Your task to perform on an android device: Show the shopping cart on newegg. Add "macbook air" to the cart on newegg Image 0: 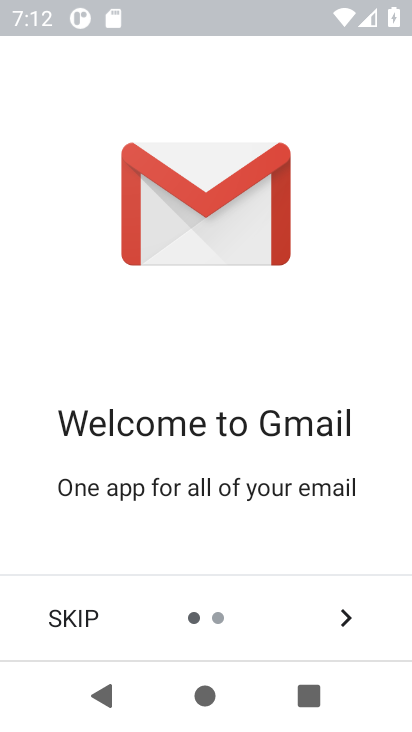
Step 0: press home button
Your task to perform on an android device: Show the shopping cart on newegg. Add "macbook air" to the cart on newegg Image 1: 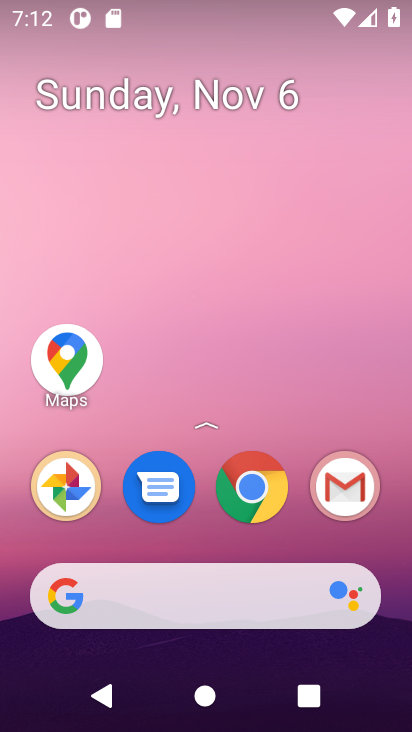
Step 1: click (230, 484)
Your task to perform on an android device: Show the shopping cart on newegg. Add "macbook air" to the cart on newegg Image 2: 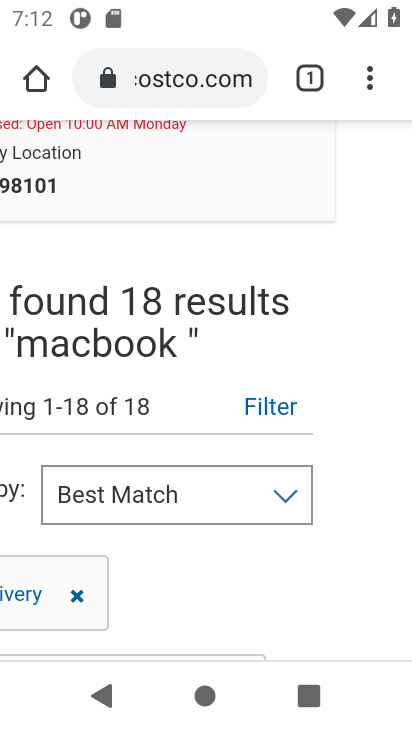
Step 2: click (216, 69)
Your task to perform on an android device: Show the shopping cart on newegg. Add "macbook air" to the cart on newegg Image 3: 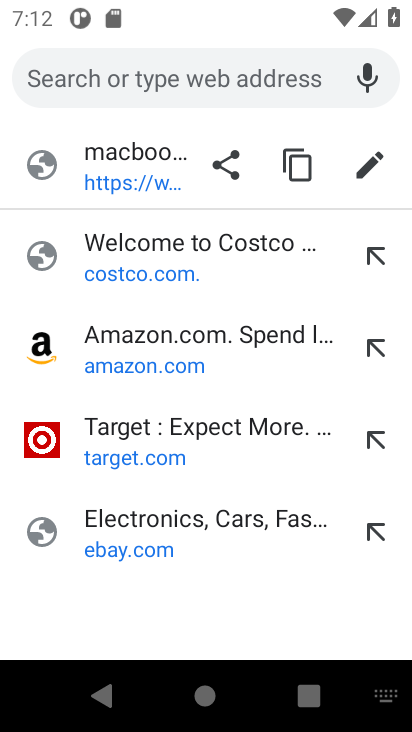
Step 3: type "newegg"
Your task to perform on an android device: Show the shopping cart on newegg. Add "macbook air" to the cart on newegg Image 4: 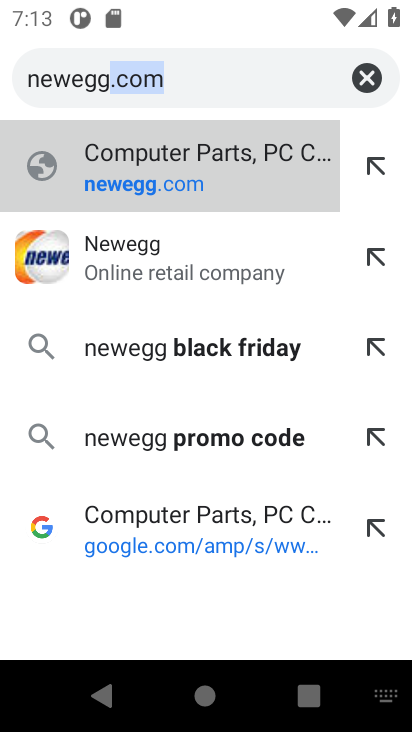
Step 4: click (70, 254)
Your task to perform on an android device: Show the shopping cart on newegg. Add "macbook air" to the cart on newegg Image 5: 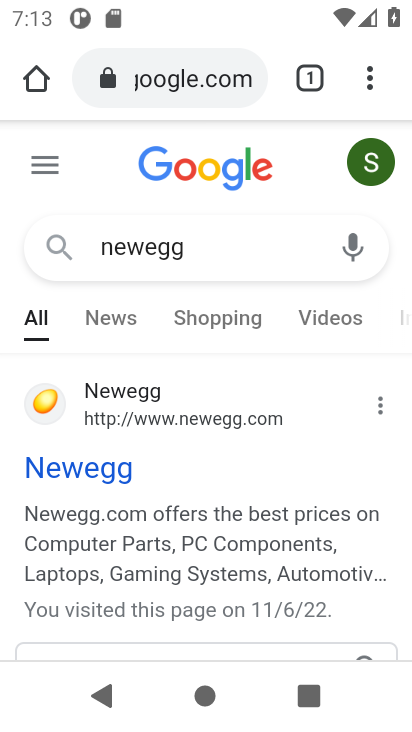
Step 5: click (50, 480)
Your task to perform on an android device: Show the shopping cart on newegg. Add "macbook air" to the cart on newegg Image 6: 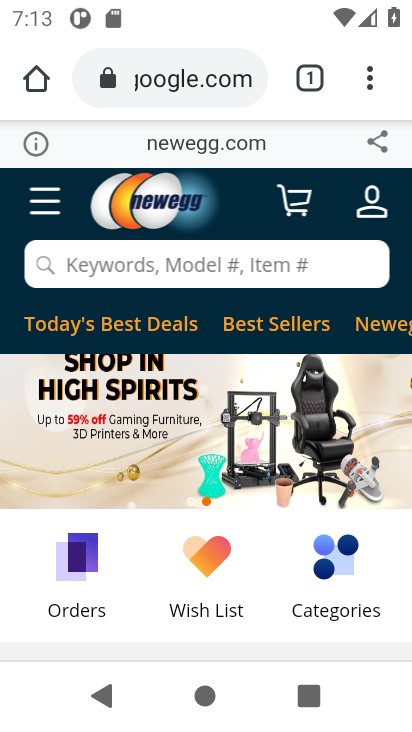
Step 6: click (113, 257)
Your task to perform on an android device: Show the shopping cart on newegg. Add "macbook air" to the cart on newegg Image 7: 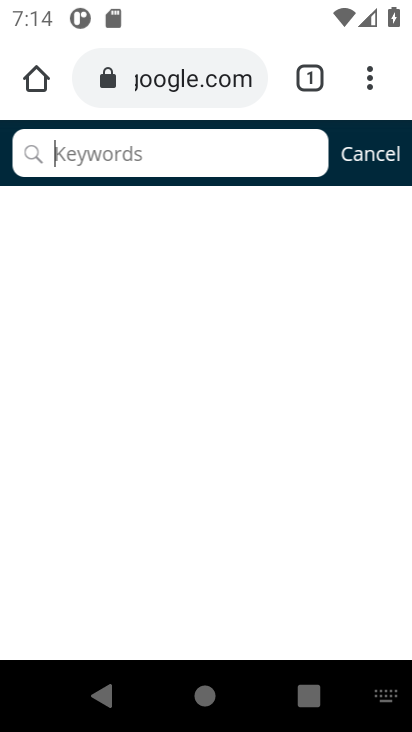
Step 7: click (393, 150)
Your task to perform on an android device: Show the shopping cart on newegg. Add "macbook air" to the cart on newegg Image 8: 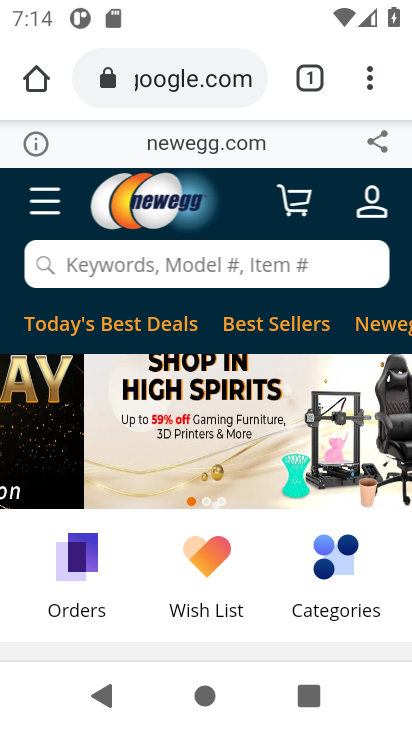
Step 8: click (310, 198)
Your task to perform on an android device: Show the shopping cart on newegg. Add "macbook air" to the cart on newegg Image 9: 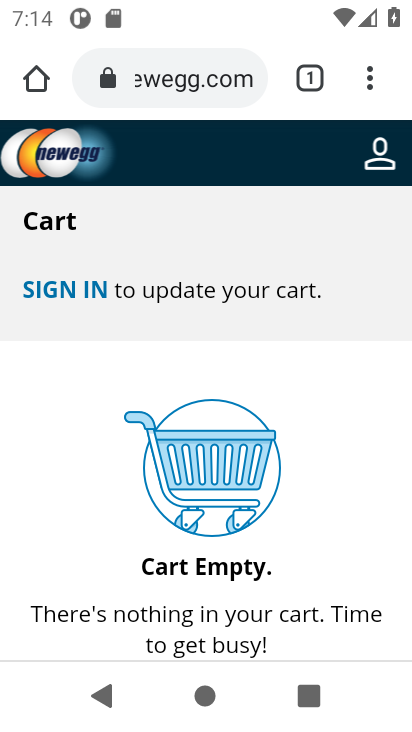
Step 9: press back button
Your task to perform on an android device: Show the shopping cart on newegg. Add "macbook air" to the cart on newegg Image 10: 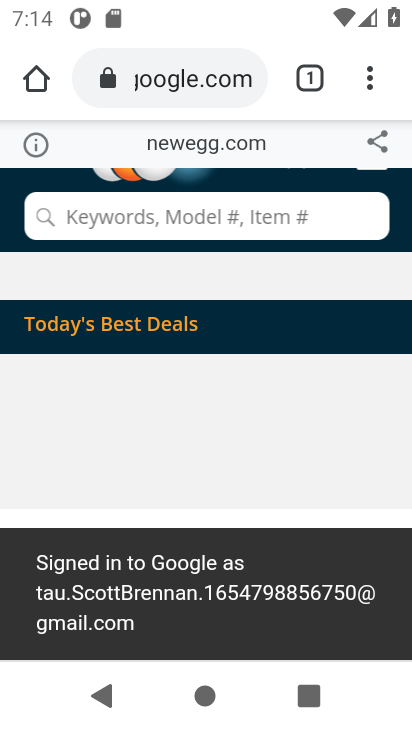
Step 10: click (116, 221)
Your task to perform on an android device: Show the shopping cart on newegg. Add "macbook air" to the cart on newegg Image 11: 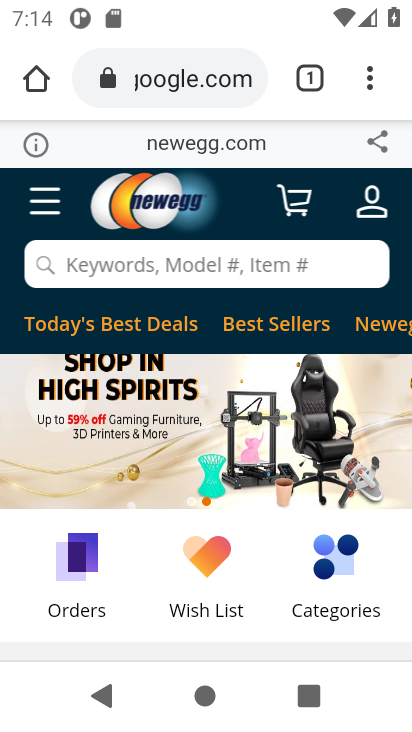
Step 11: click (132, 257)
Your task to perform on an android device: Show the shopping cart on newegg. Add "macbook air" to the cart on newegg Image 12: 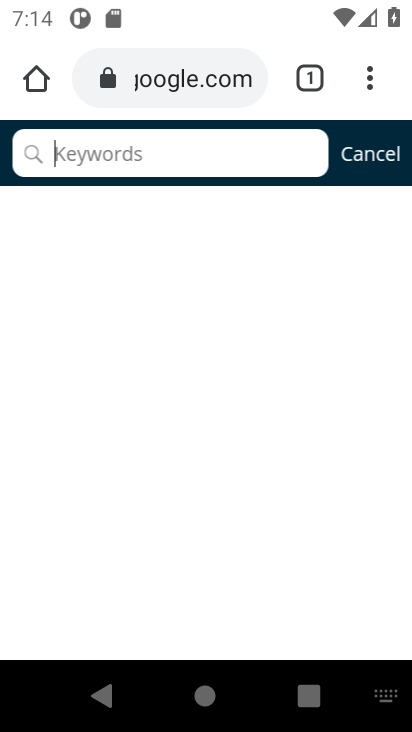
Step 12: type "macbook air"
Your task to perform on an android device: Show the shopping cart on newegg. Add "macbook air" to the cart on newegg Image 13: 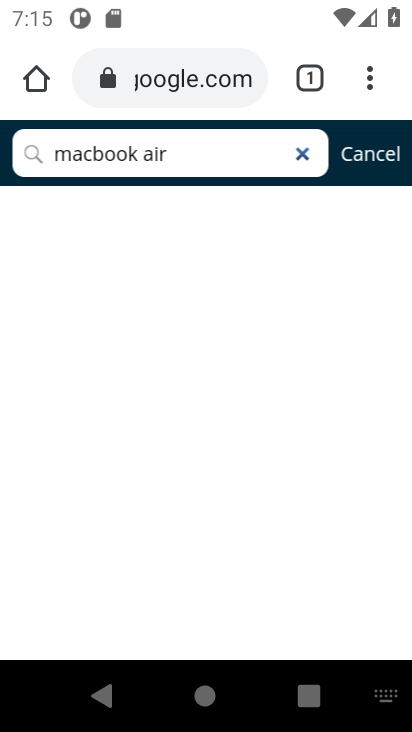
Step 13: click (169, 245)
Your task to perform on an android device: Show the shopping cart on newegg. Add "macbook air" to the cart on newegg Image 14: 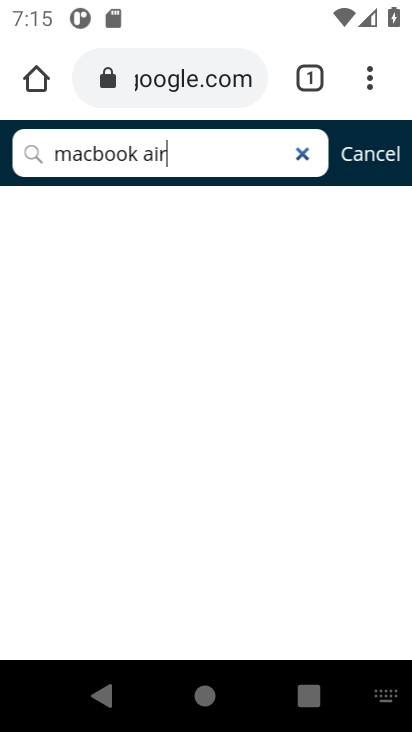
Step 14: click (169, 245)
Your task to perform on an android device: Show the shopping cart on newegg. Add "macbook air" to the cart on newegg Image 15: 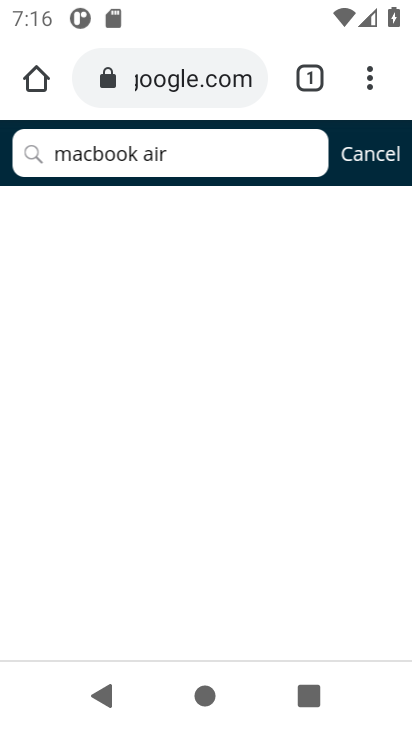
Step 15: task complete